Your task to perform on an android device: What is the recent news? Image 0: 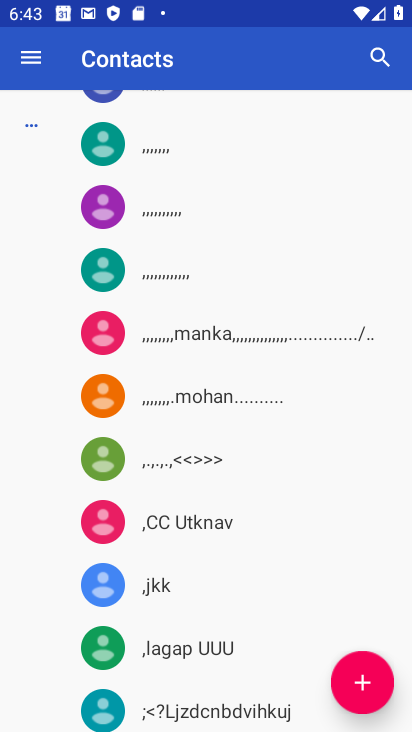
Step 0: press home button
Your task to perform on an android device: What is the recent news? Image 1: 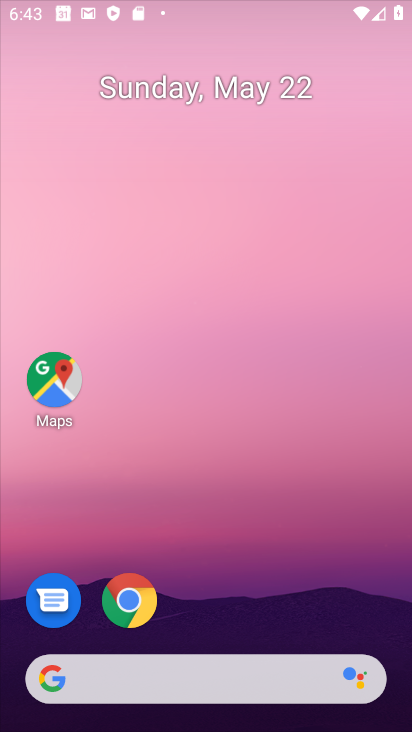
Step 1: drag from (347, 622) to (254, 5)
Your task to perform on an android device: What is the recent news? Image 2: 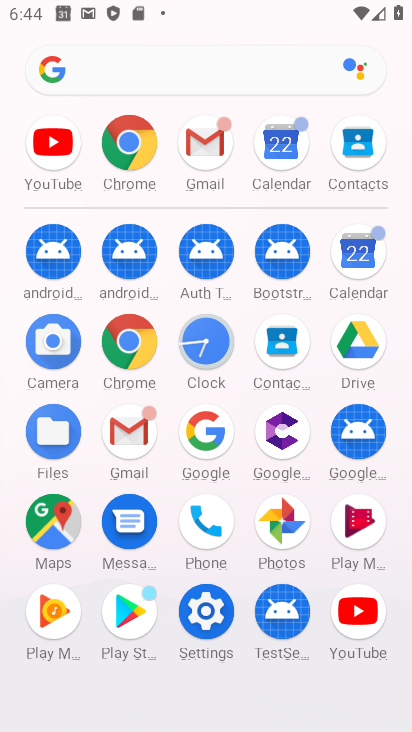
Step 2: click (214, 442)
Your task to perform on an android device: What is the recent news? Image 3: 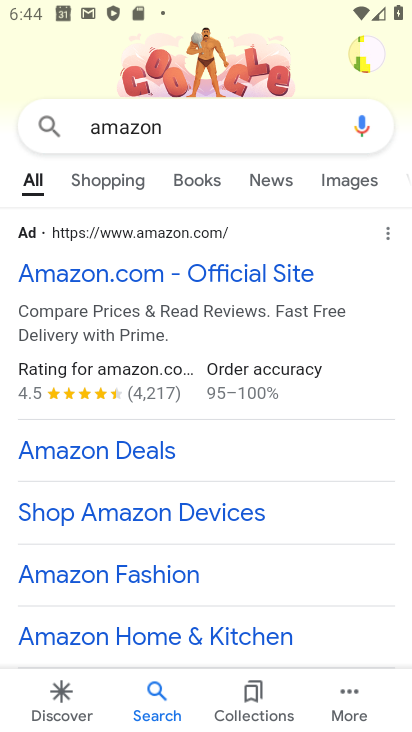
Step 3: press back button
Your task to perform on an android device: What is the recent news? Image 4: 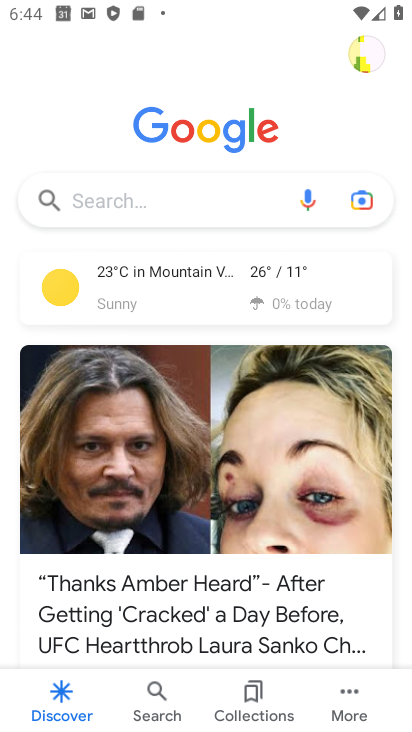
Step 4: click (103, 208)
Your task to perform on an android device: What is the recent news? Image 5: 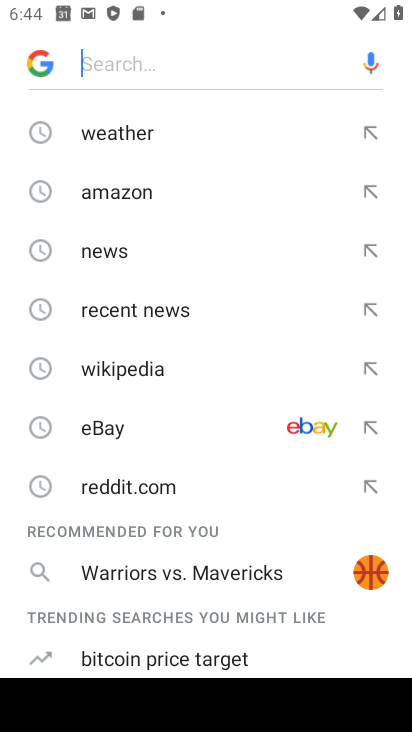
Step 5: click (179, 329)
Your task to perform on an android device: What is the recent news? Image 6: 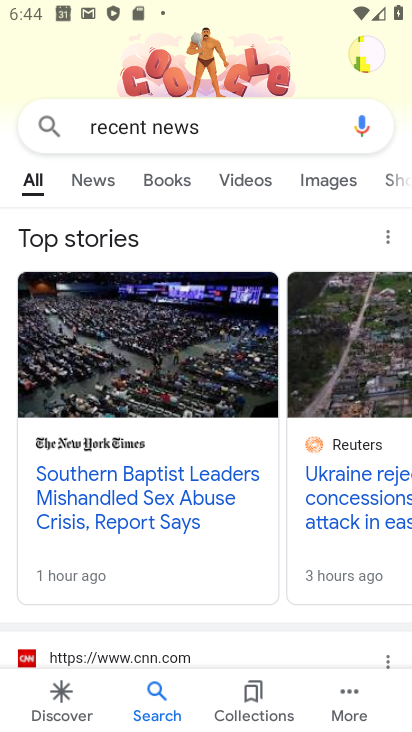
Step 6: task complete